Your task to perform on an android device: Open Google Maps Image 0: 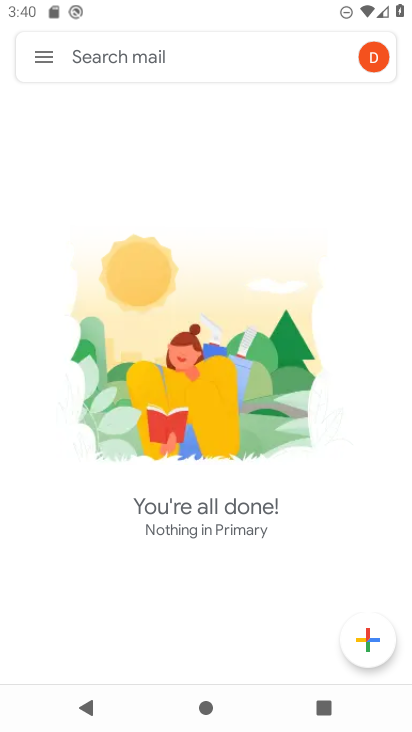
Step 0: press home button
Your task to perform on an android device: Open Google Maps Image 1: 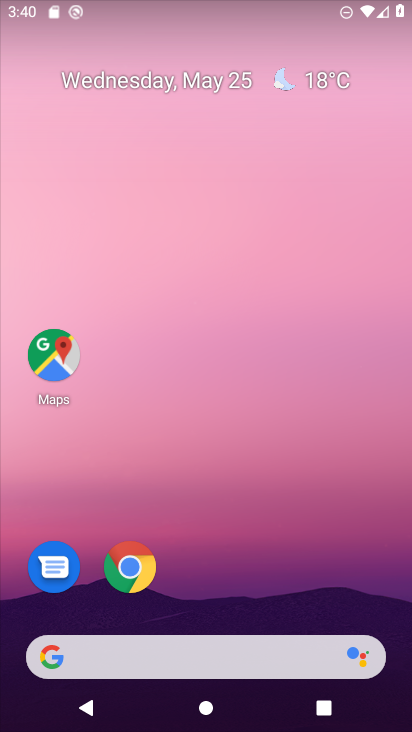
Step 1: drag from (374, 587) to (369, 201)
Your task to perform on an android device: Open Google Maps Image 2: 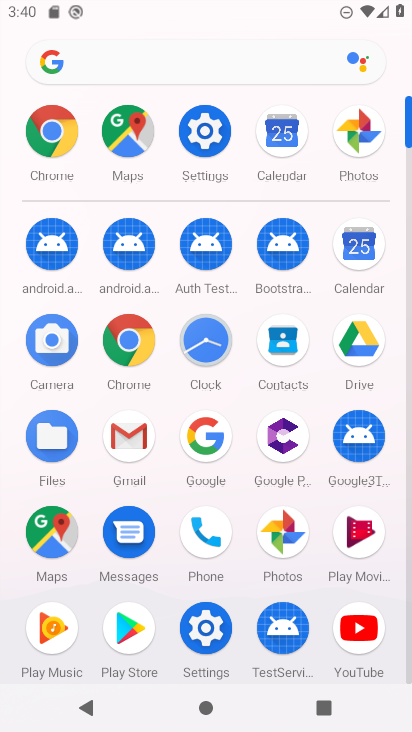
Step 2: click (56, 541)
Your task to perform on an android device: Open Google Maps Image 3: 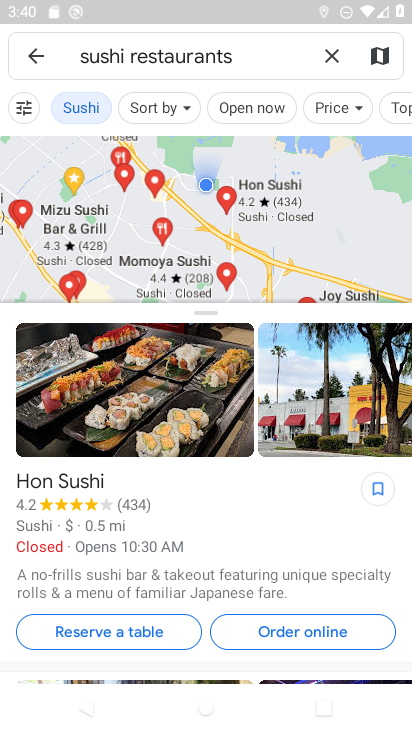
Step 3: task complete